Your task to perform on an android device: What's the news in Jamaica? Image 0: 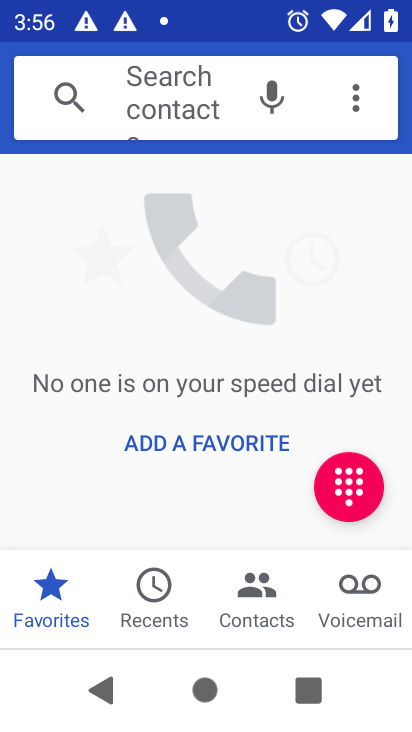
Step 0: press home button
Your task to perform on an android device: What's the news in Jamaica? Image 1: 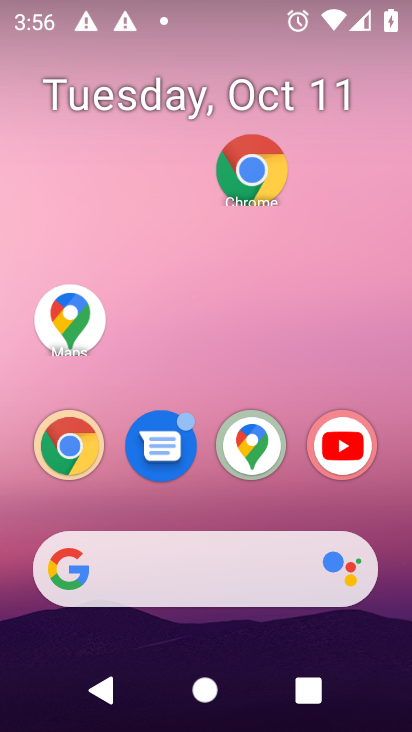
Step 1: click (241, 183)
Your task to perform on an android device: What's the news in Jamaica? Image 2: 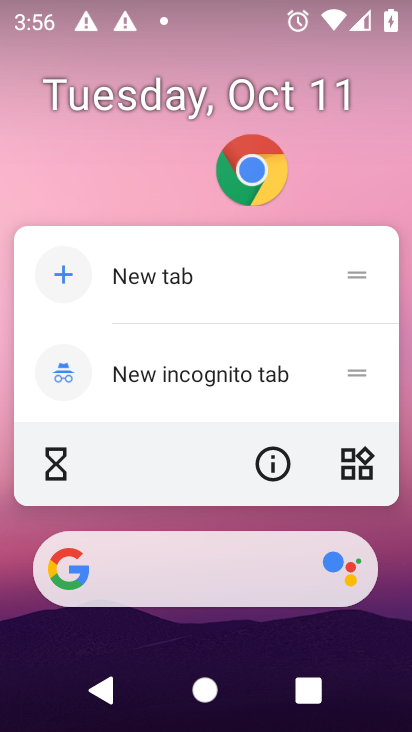
Step 2: click (241, 182)
Your task to perform on an android device: What's the news in Jamaica? Image 3: 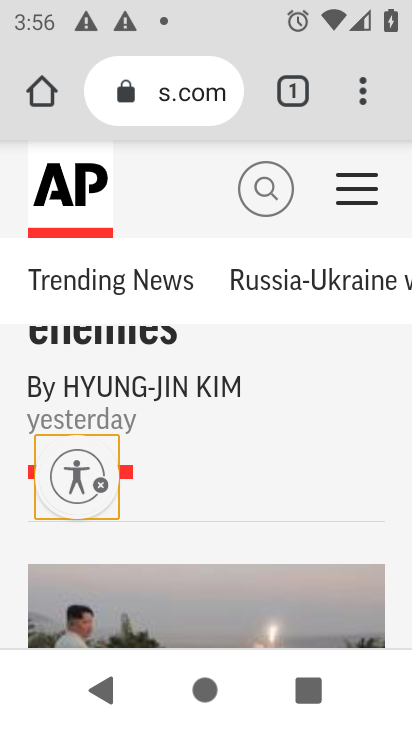
Step 3: click (156, 98)
Your task to perform on an android device: What's the news in Jamaica? Image 4: 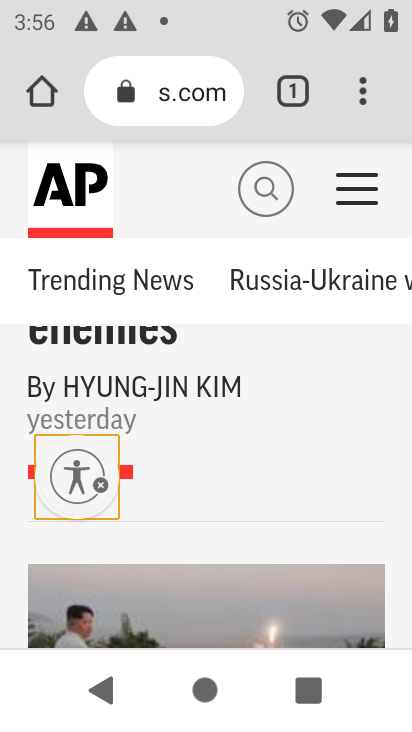
Step 4: click (183, 98)
Your task to perform on an android device: What's the news in Jamaica? Image 5: 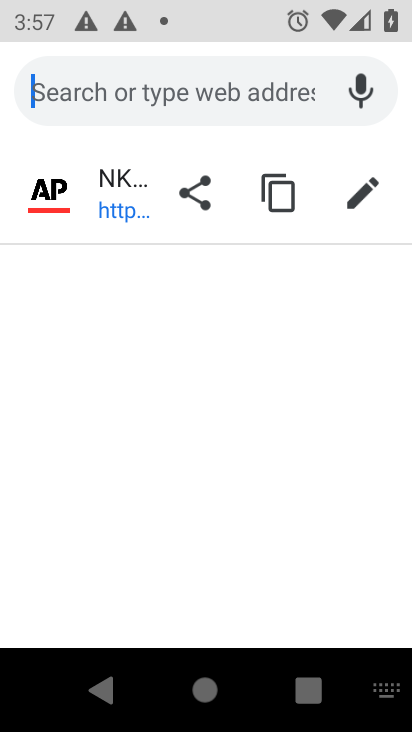
Step 5: type " Jamaica news"
Your task to perform on an android device: What's the news in Jamaica? Image 6: 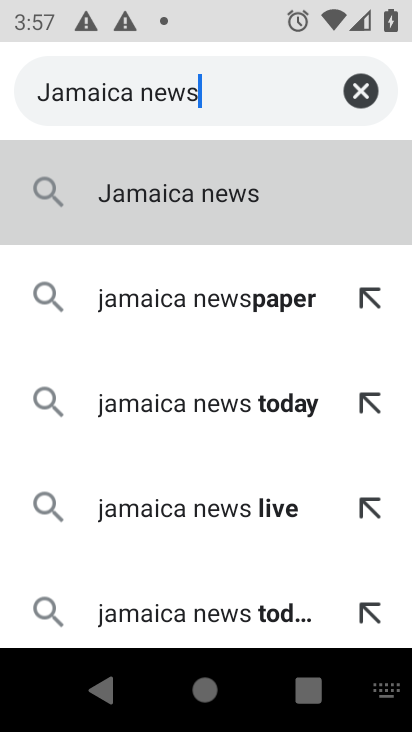
Step 6: click (165, 185)
Your task to perform on an android device: What's the news in Jamaica? Image 7: 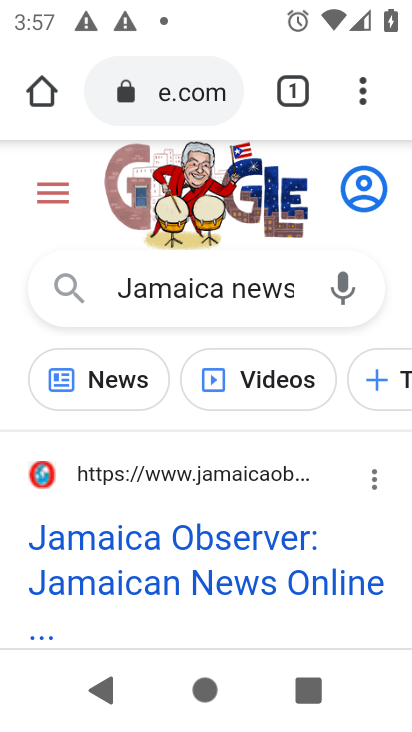
Step 7: drag from (208, 569) to (197, 349)
Your task to perform on an android device: What's the news in Jamaica? Image 8: 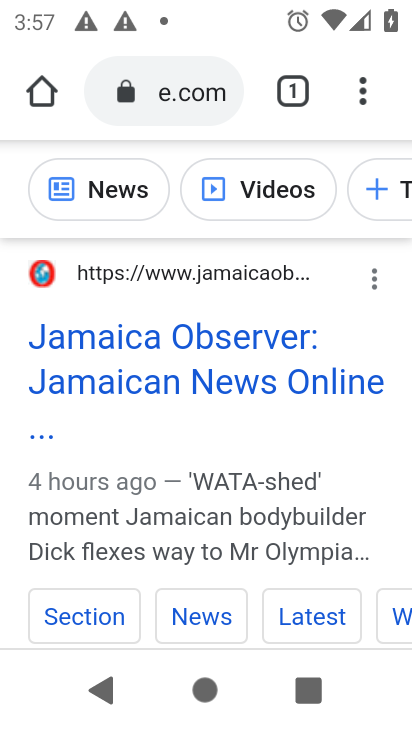
Step 8: click (105, 202)
Your task to perform on an android device: What's the news in Jamaica? Image 9: 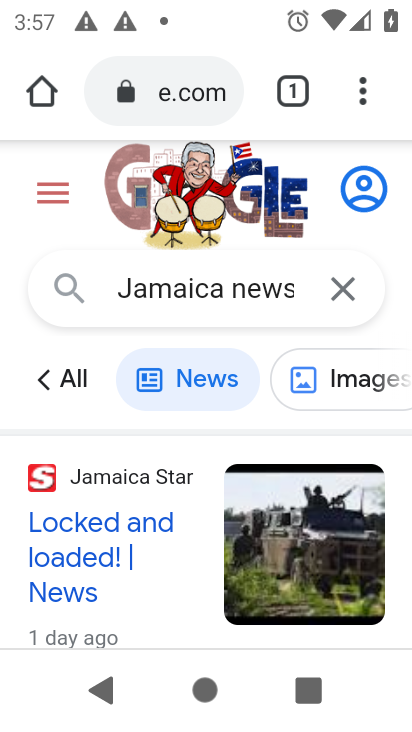
Step 9: drag from (157, 508) to (164, 254)
Your task to perform on an android device: What's the news in Jamaica? Image 10: 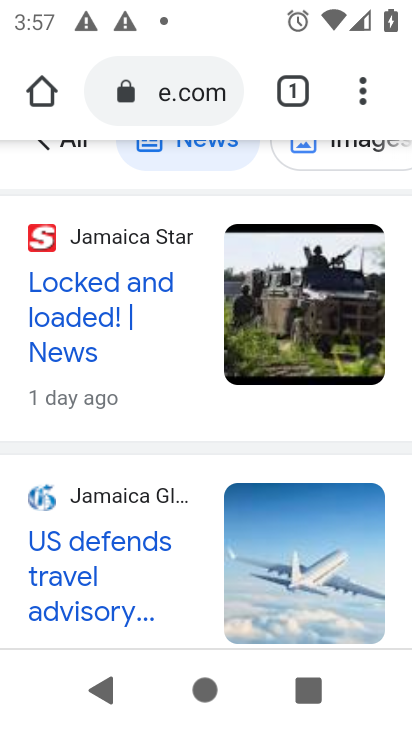
Step 10: click (95, 295)
Your task to perform on an android device: What's the news in Jamaica? Image 11: 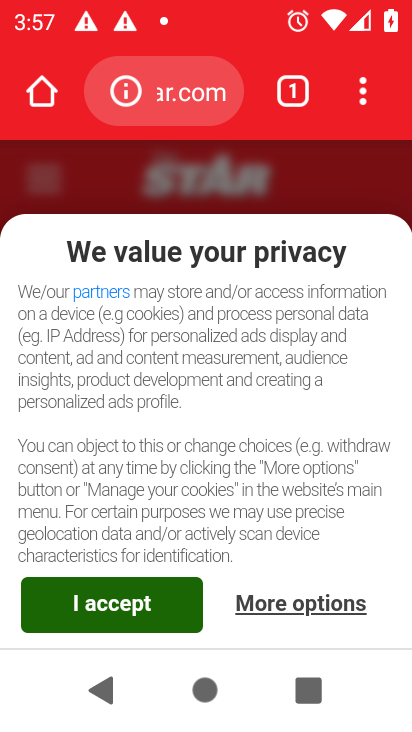
Step 11: task complete